Your task to perform on an android device: Search for Mexican restaurants on Maps Image 0: 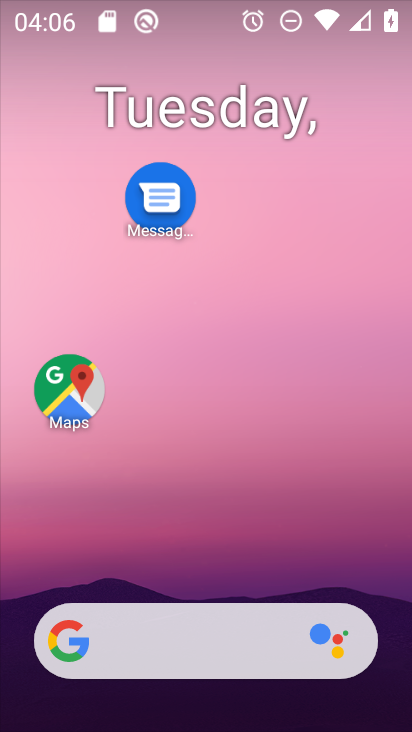
Step 0: click (86, 384)
Your task to perform on an android device: Search for Mexican restaurants on Maps Image 1: 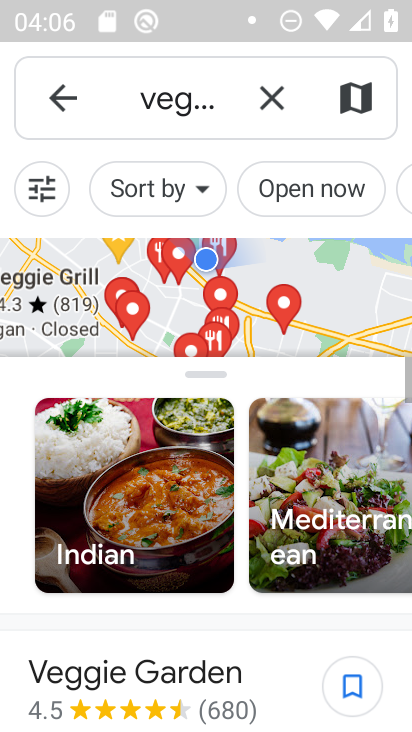
Step 1: click (264, 105)
Your task to perform on an android device: Search for Mexican restaurants on Maps Image 2: 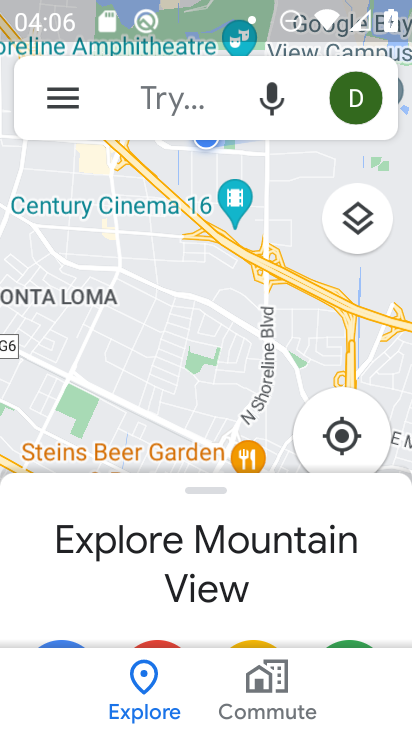
Step 2: click (189, 97)
Your task to perform on an android device: Search for Mexican restaurants on Maps Image 3: 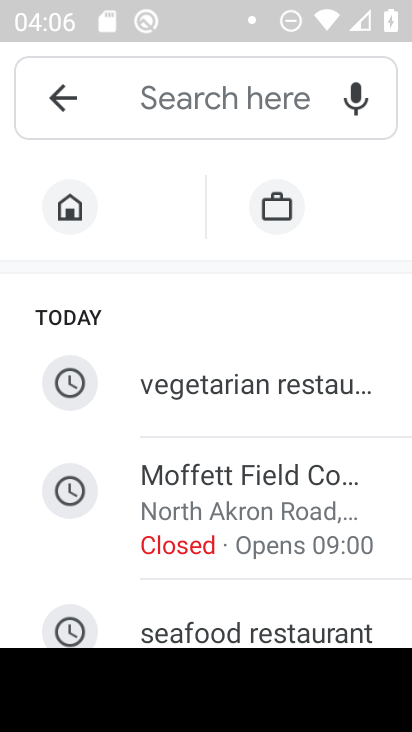
Step 3: type "Mexican restaurants"
Your task to perform on an android device: Search for Mexican restaurants on Maps Image 4: 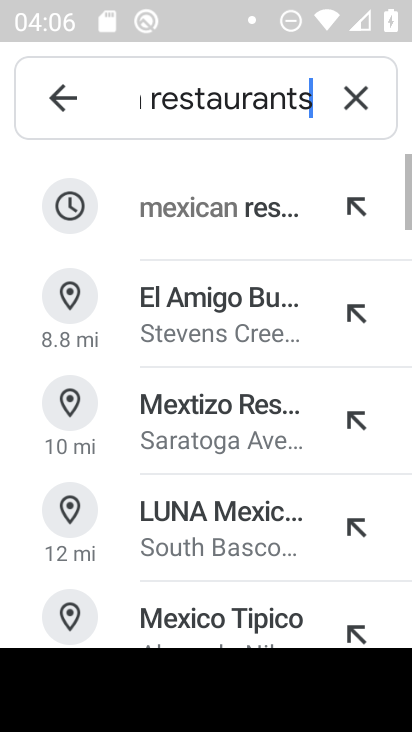
Step 4: click (233, 218)
Your task to perform on an android device: Search for Mexican restaurants on Maps Image 5: 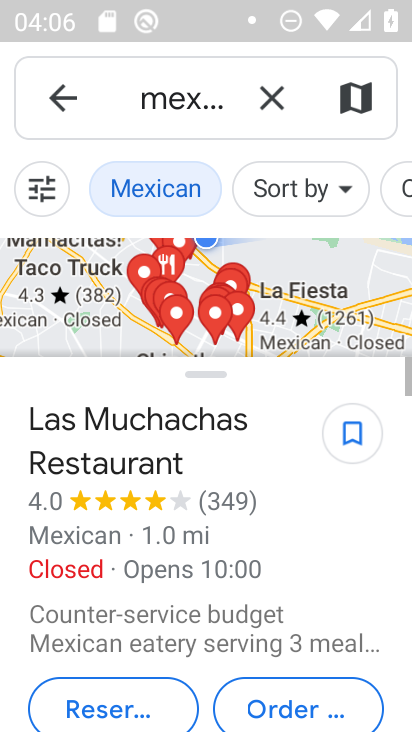
Step 5: task complete